Your task to perform on an android device: Open sound settings Image 0: 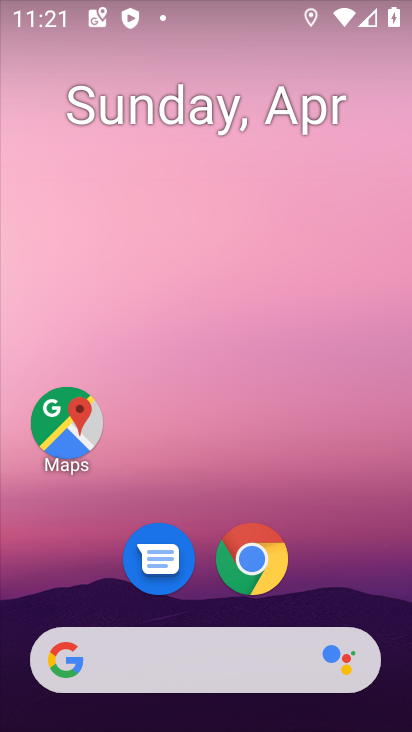
Step 0: drag from (362, 537) to (401, 77)
Your task to perform on an android device: Open sound settings Image 1: 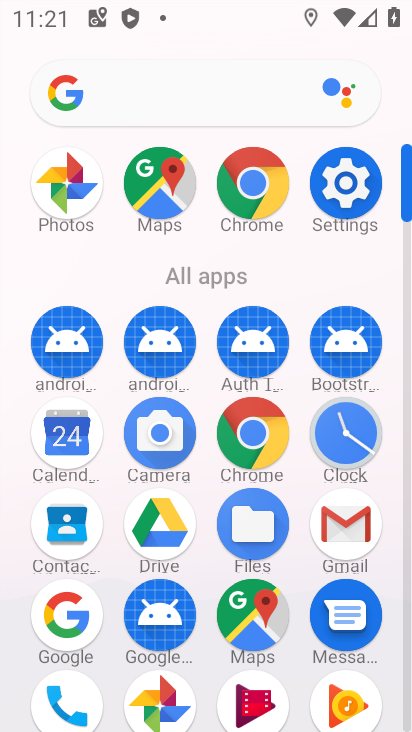
Step 1: click (330, 198)
Your task to perform on an android device: Open sound settings Image 2: 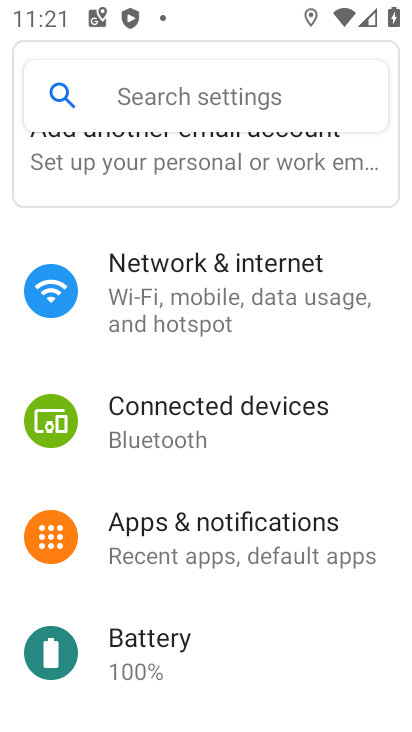
Step 2: drag from (285, 379) to (297, 339)
Your task to perform on an android device: Open sound settings Image 3: 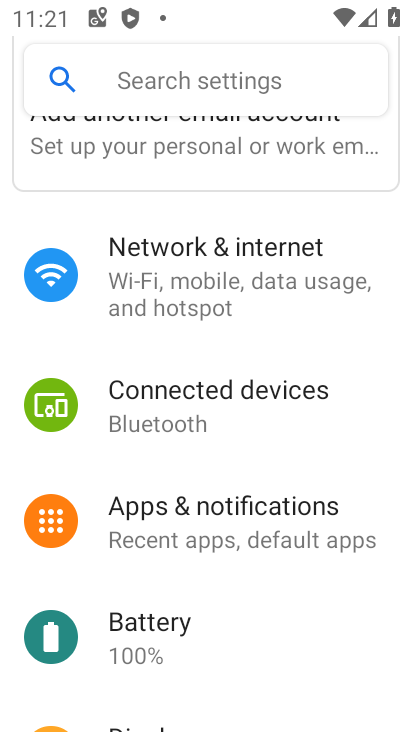
Step 3: drag from (258, 579) to (255, 458)
Your task to perform on an android device: Open sound settings Image 4: 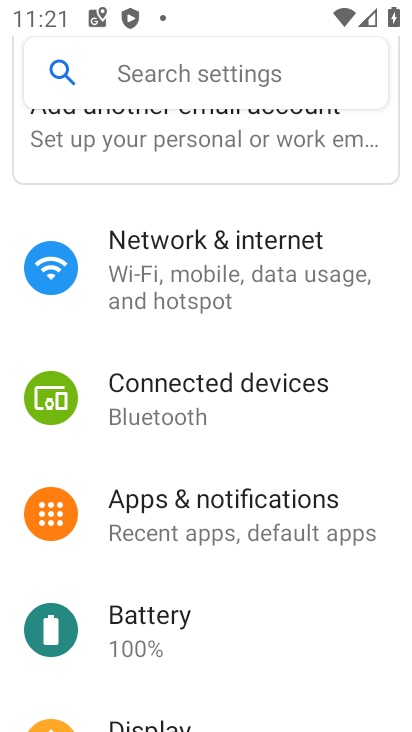
Step 4: drag from (234, 594) to (243, 459)
Your task to perform on an android device: Open sound settings Image 5: 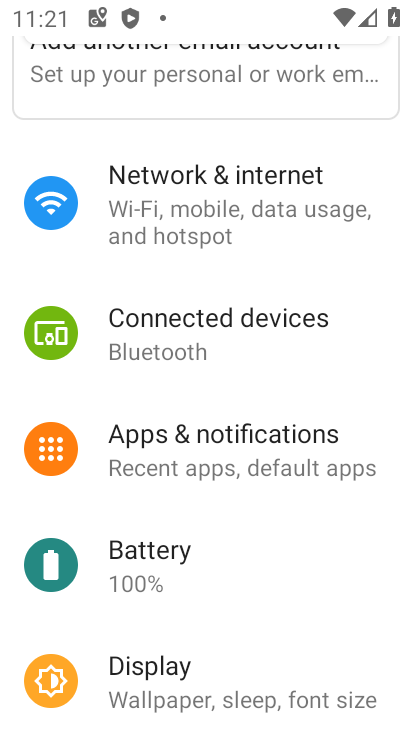
Step 5: drag from (193, 631) to (227, 516)
Your task to perform on an android device: Open sound settings Image 6: 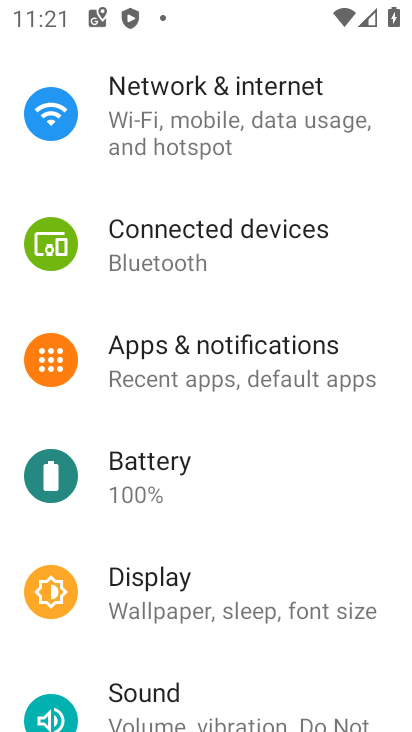
Step 6: drag from (235, 503) to (251, 468)
Your task to perform on an android device: Open sound settings Image 7: 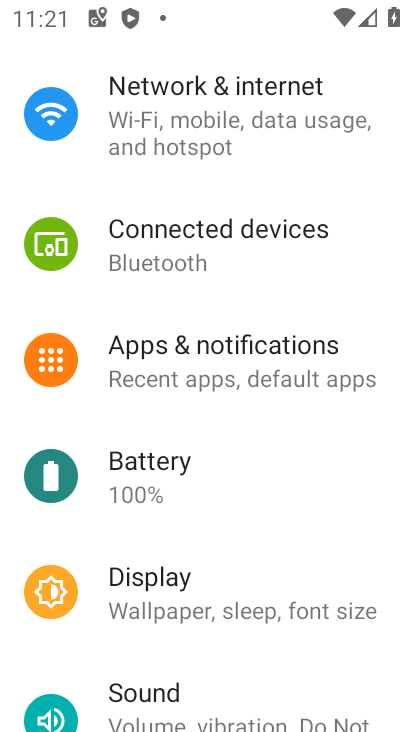
Step 7: click (201, 688)
Your task to perform on an android device: Open sound settings Image 8: 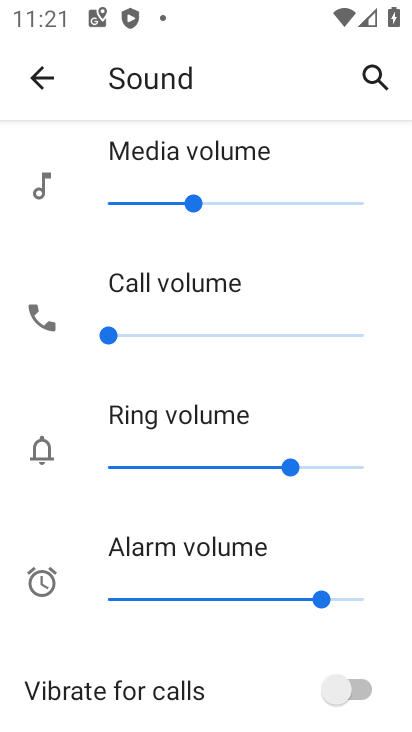
Step 8: task complete